Your task to perform on an android device: Open Google Image 0: 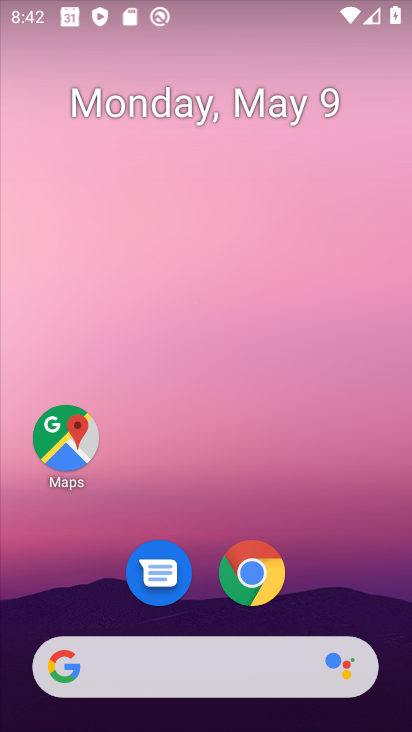
Step 0: drag from (320, 571) to (323, 4)
Your task to perform on an android device: Open Google Image 1: 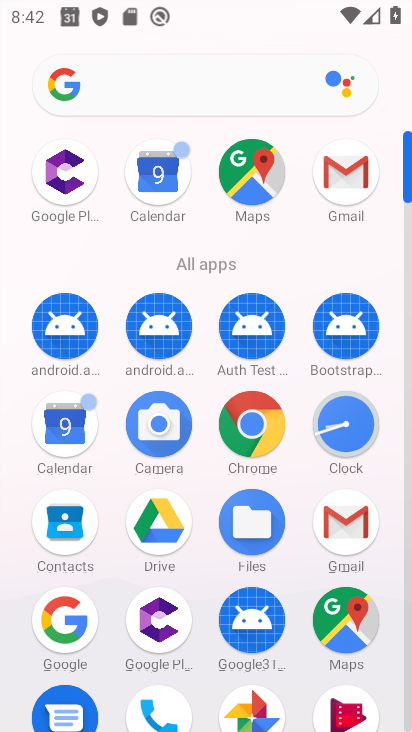
Step 1: click (67, 621)
Your task to perform on an android device: Open Google Image 2: 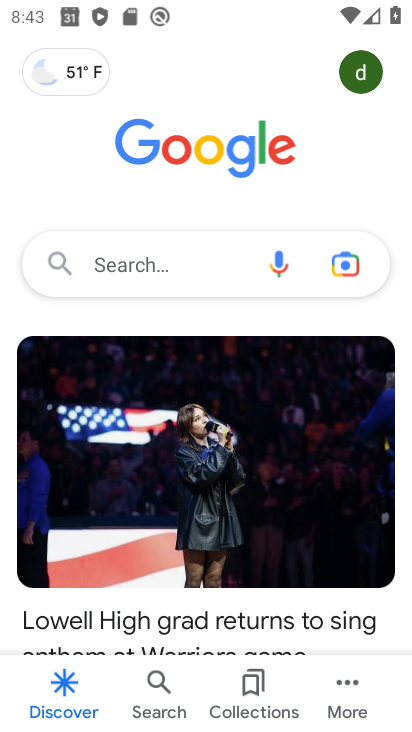
Step 2: task complete